Your task to perform on an android device: Open ESPN.com Image 0: 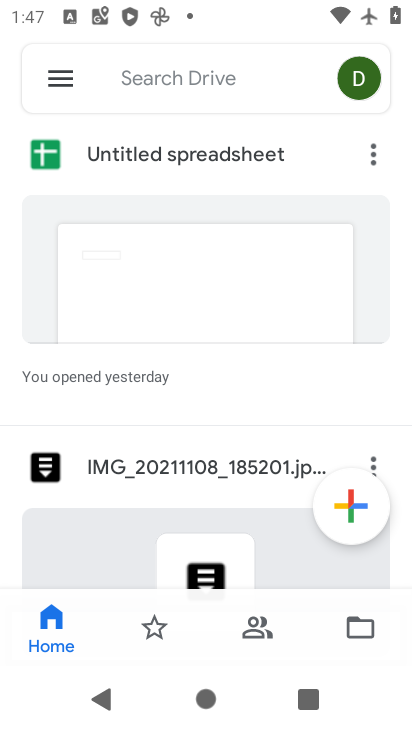
Step 0: press home button
Your task to perform on an android device: Open ESPN.com Image 1: 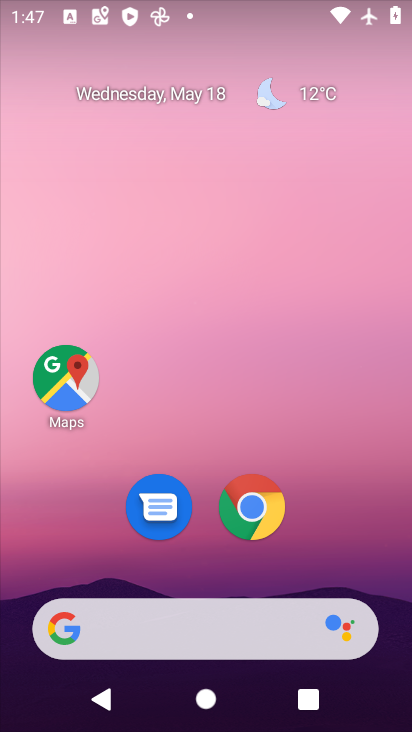
Step 1: click (250, 510)
Your task to perform on an android device: Open ESPN.com Image 2: 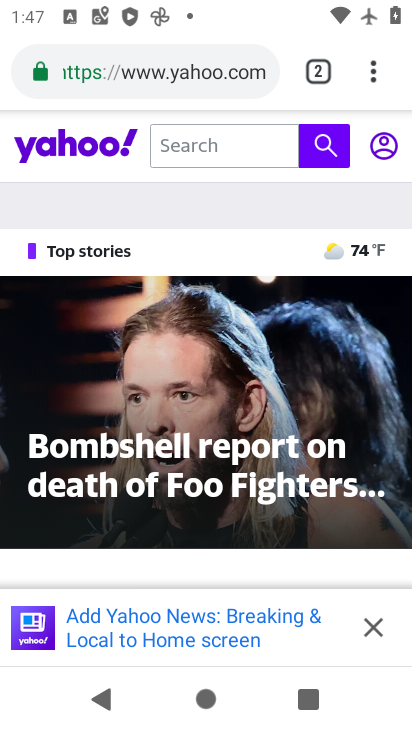
Step 2: click (219, 63)
Your task to perform on an android device: Open ESPN.com Image 3: 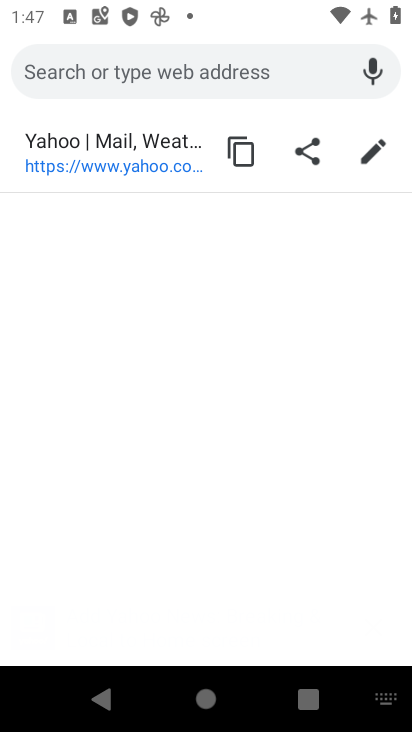
Step 3: type "espn.com"
Your task to perform on an android device: Open ESPN.com Image 4: 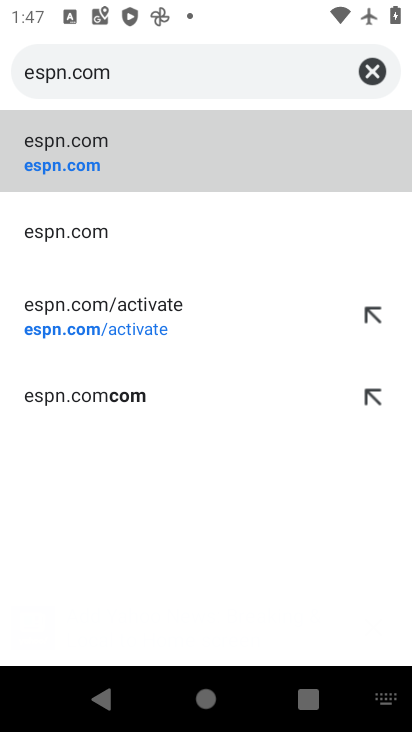
Step 4: click (71, 165)
Your task to perform on an android device: Open ESPN.com Image 5: 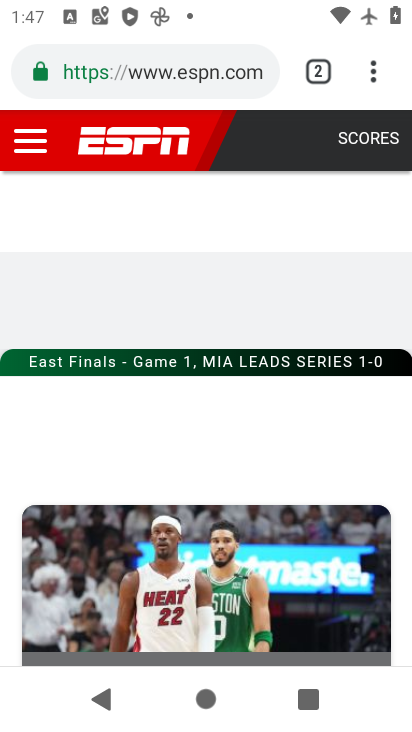
Step 5: task complete